Your task to perform on an android device: Open the calendar and show me this week's events Image 0: 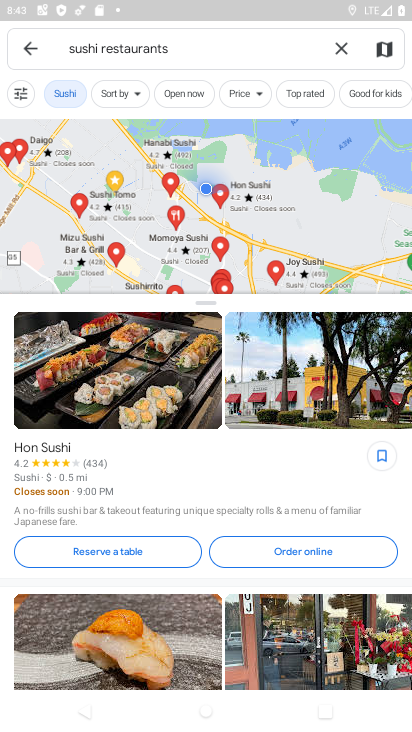
Step 0: press home button
Your task to perform on an android device: Open the calendar and show me this week's events Image 1: 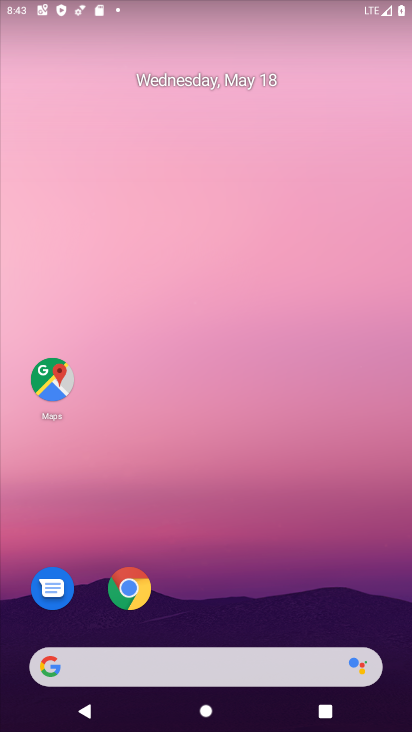
Step 1: drag from (280, 643) to (380, 11)
Your task to perform on an android device: Open the calendar and show me this week's events Image 2: 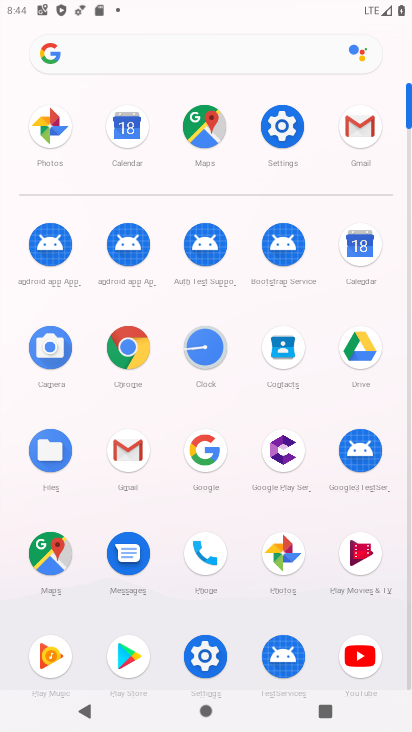
Step 2: click (363, 256)
Your task to perform on an android device: Open the calendar and show me this week's events Image 3: 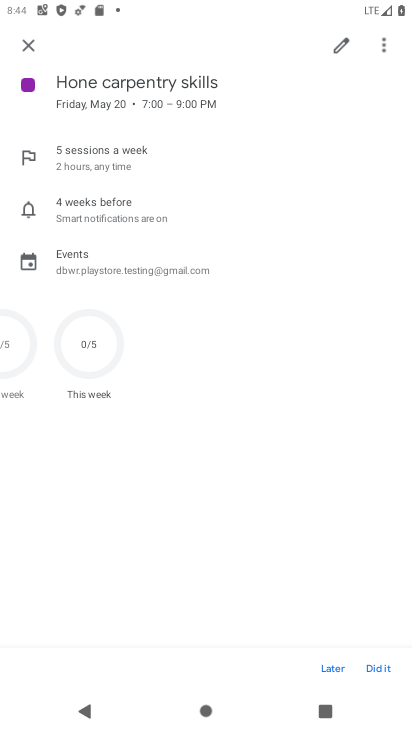
Step 3: click (31, 47)
Your task to perform on an android device: Open the calendar and show me this week's events Image 4: 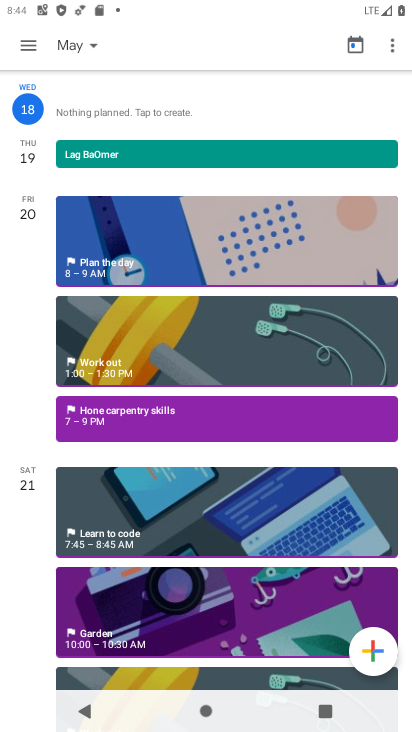
Step 4: click (35, 49)
Your task to perform on an android device: Open the calendar and show me this week's events Image 5: 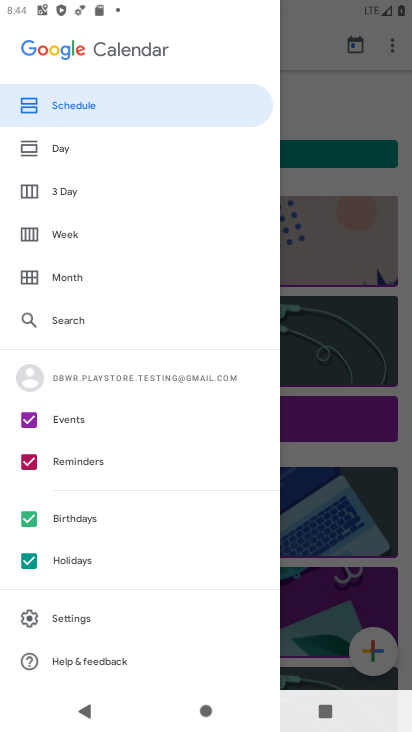
Step 5: click (23, 462)
Your task to perform on an android device: Open the calendar and show me this week's events Image 6: 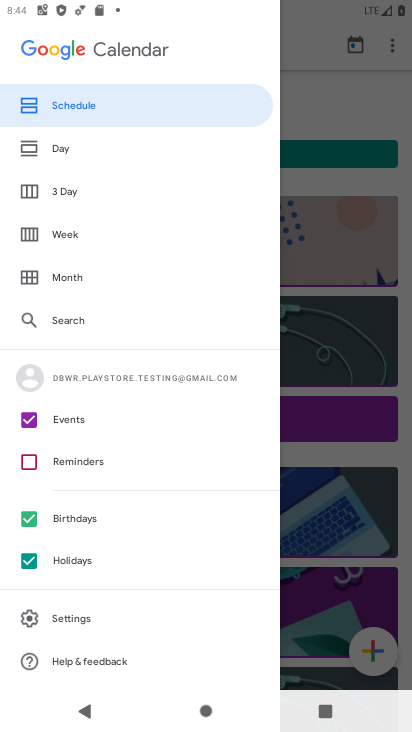
Step 6: click (17, 516)
Your task to perform on an android device: Open the calendar and show me this week's events Image 7: 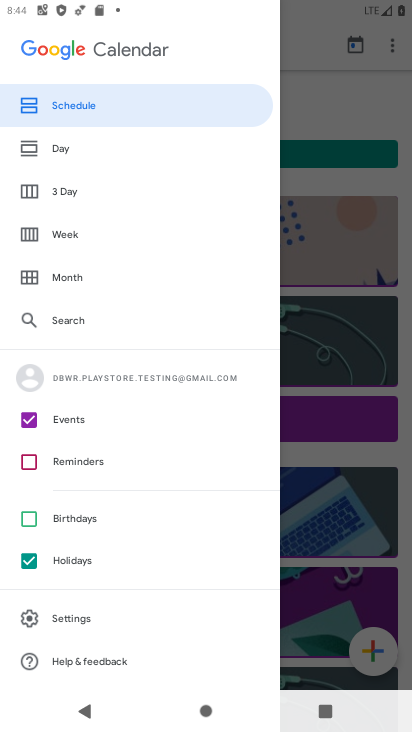
Step 7: click (18, 557)
Your task to perform on an android device: Open the calendar and show me this week's events Image 8: 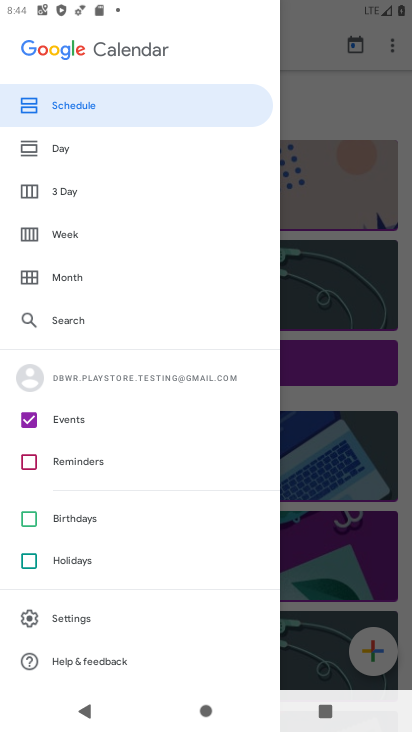
Step 8: click (24, 230)
Your task to perform on an android device: Open the calendar and show me this week's events Image 9: 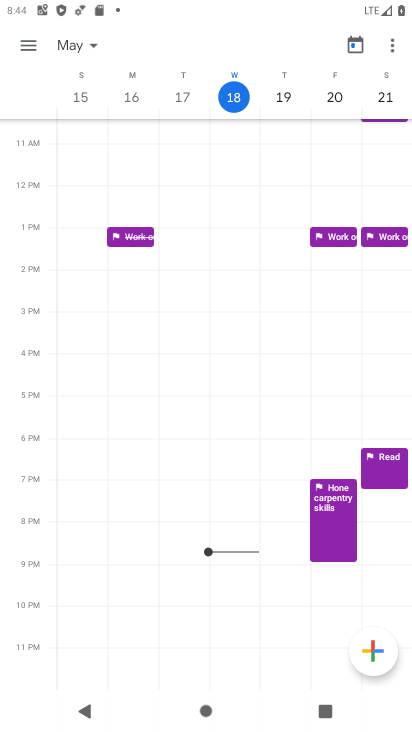
Step 9: task complete